Your task to perform on an android device: turn on improve location accuracy Image 0: 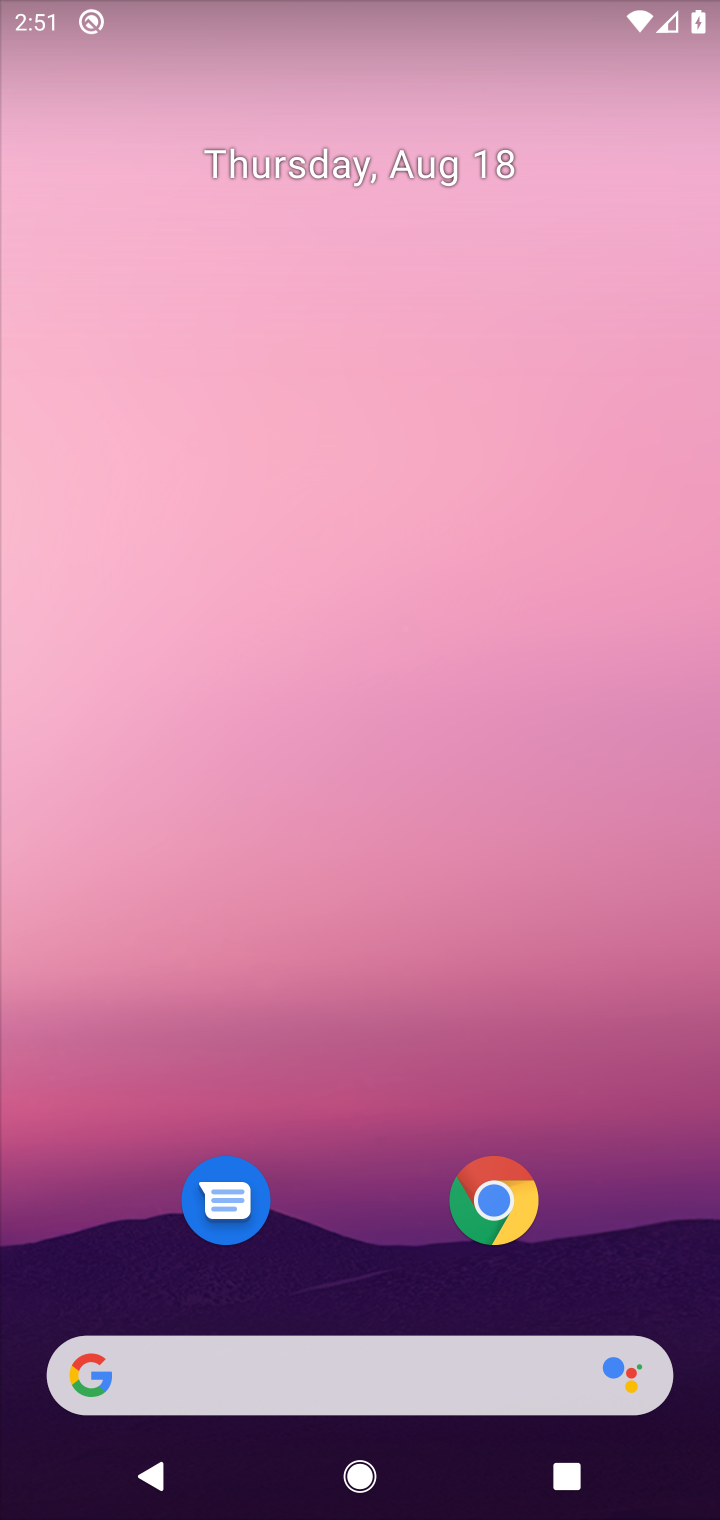
Step 0: drag from (369, 1234) to (451, 227)
Your task to perform on an android device: turn on improve location accuracy Image 1: 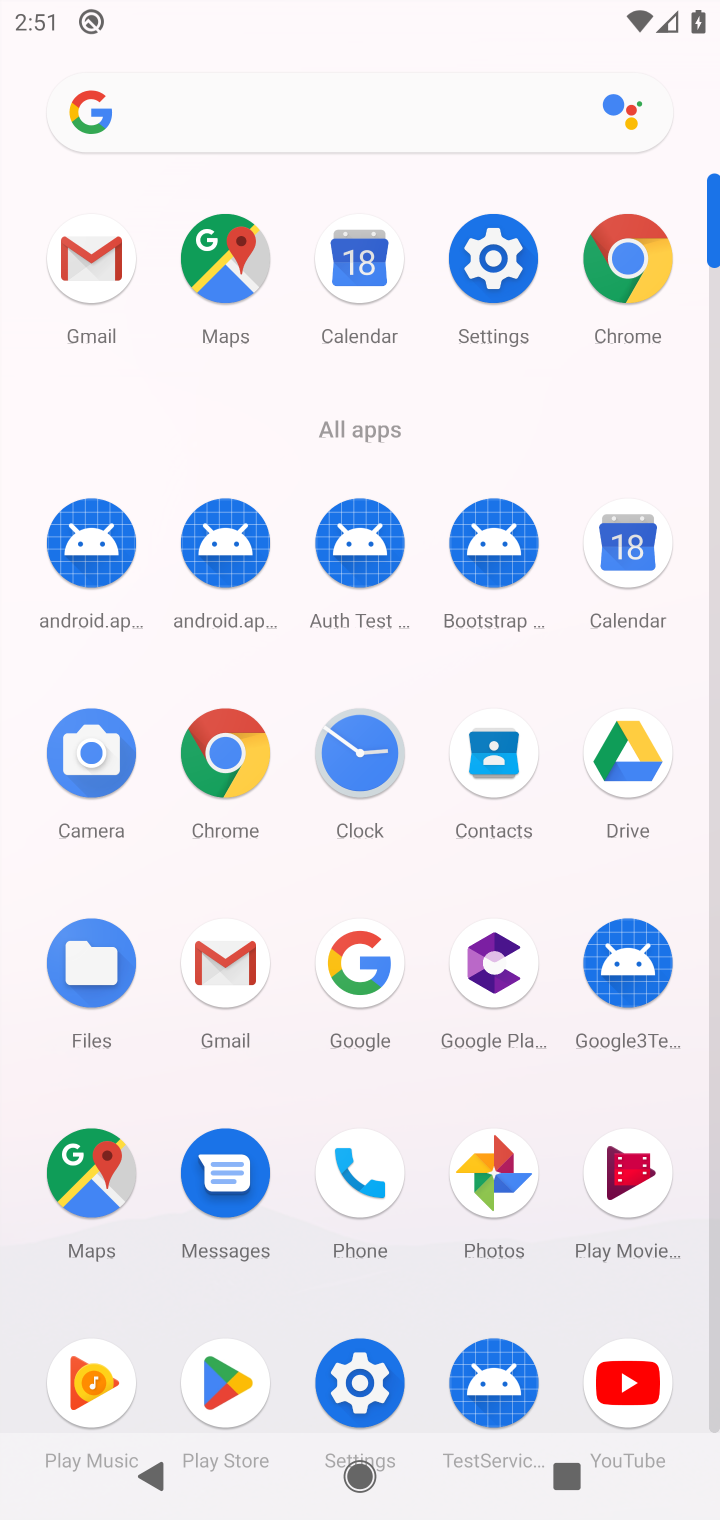
Step 1: click (357, 1382)
Your task to perform on an android device: turn on improve location accuracy Image 2: 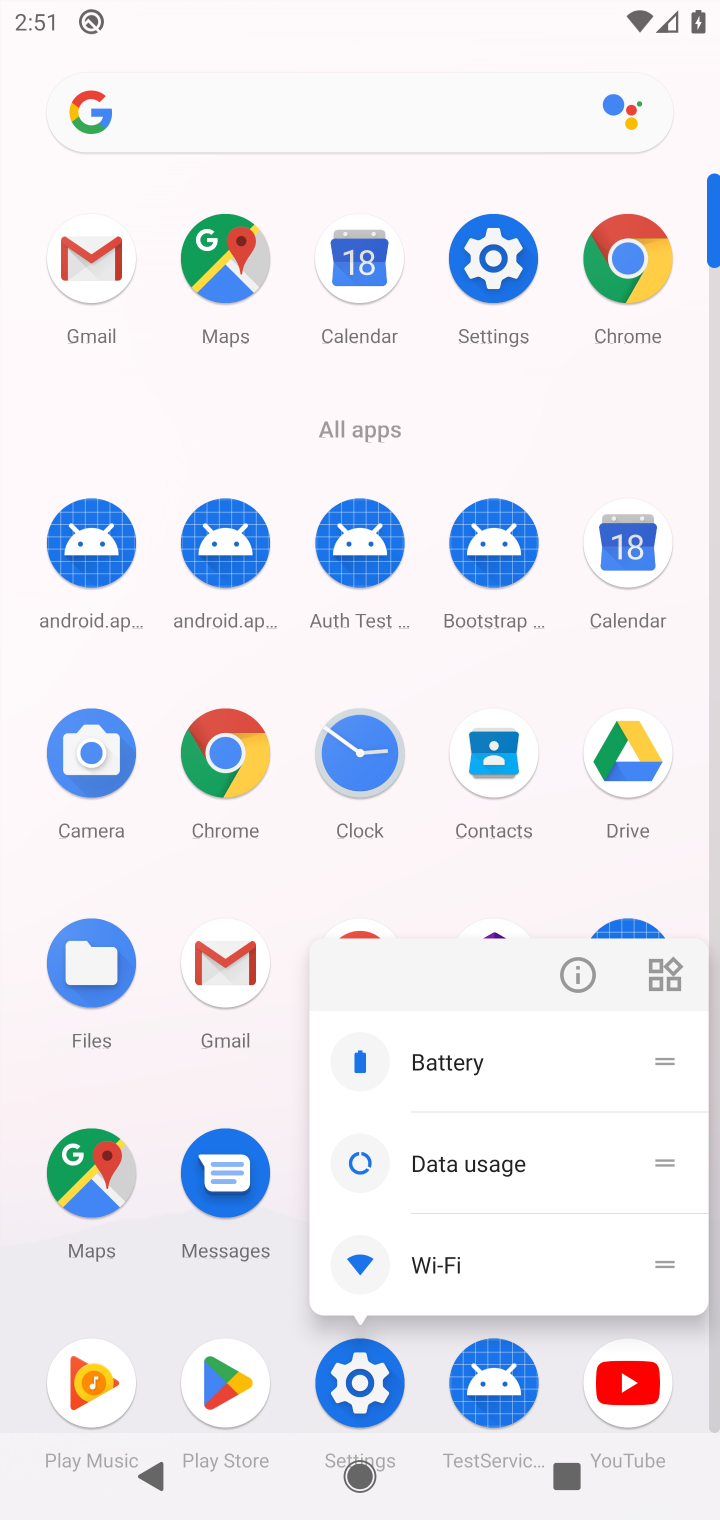
Step 2: click (358, 1355)
Your task to perform on an android device: turn on improve location accuracy Image 3: 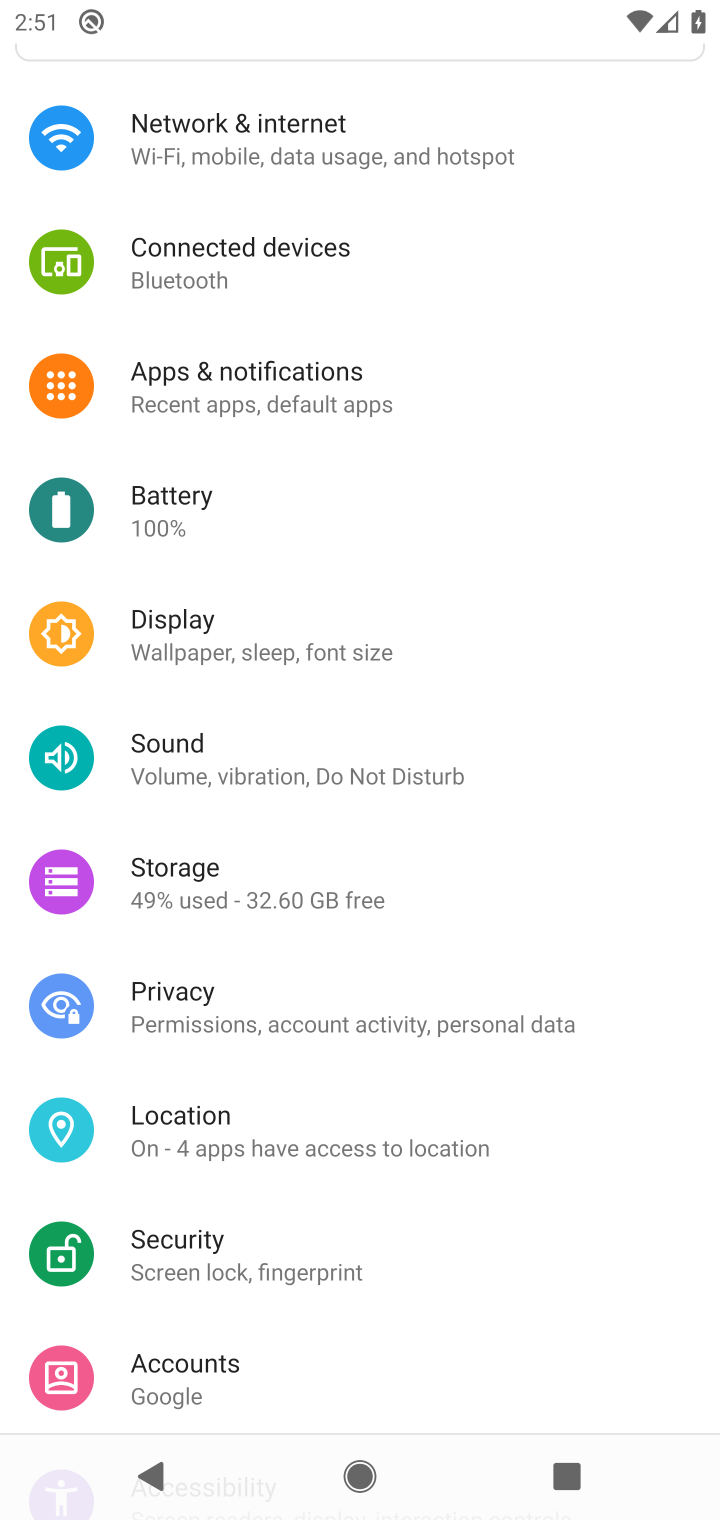
Step 3: click (224, 1145)
Your task to perform on an android device: turn on improve location accuracy Image 4: 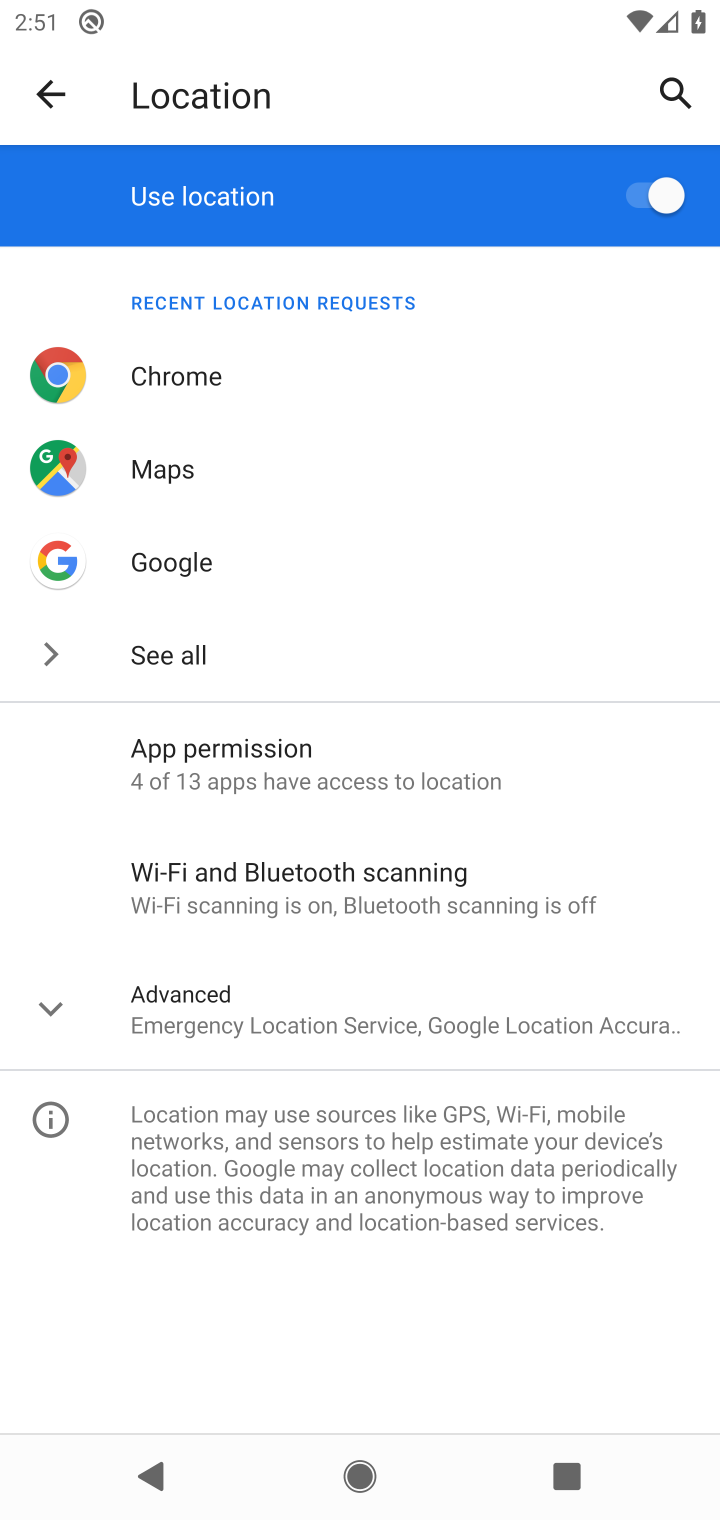
Step 4: click (284, 1000)
Your task to perform on an android device: turn on improve location accuracy Image 5: 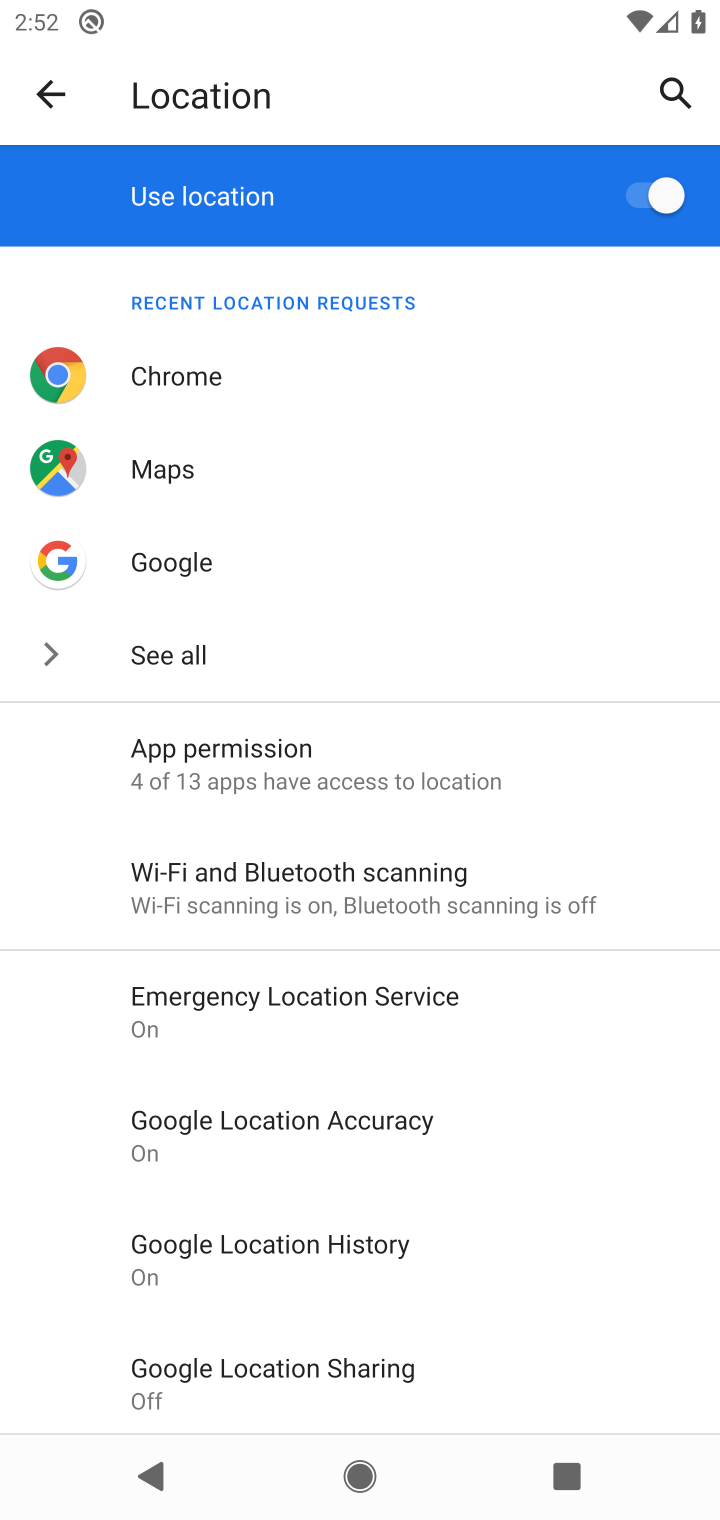
Step 5: click (296, 1103)
Your task to perform on an android device: turn on improve location accuracy Image 6: 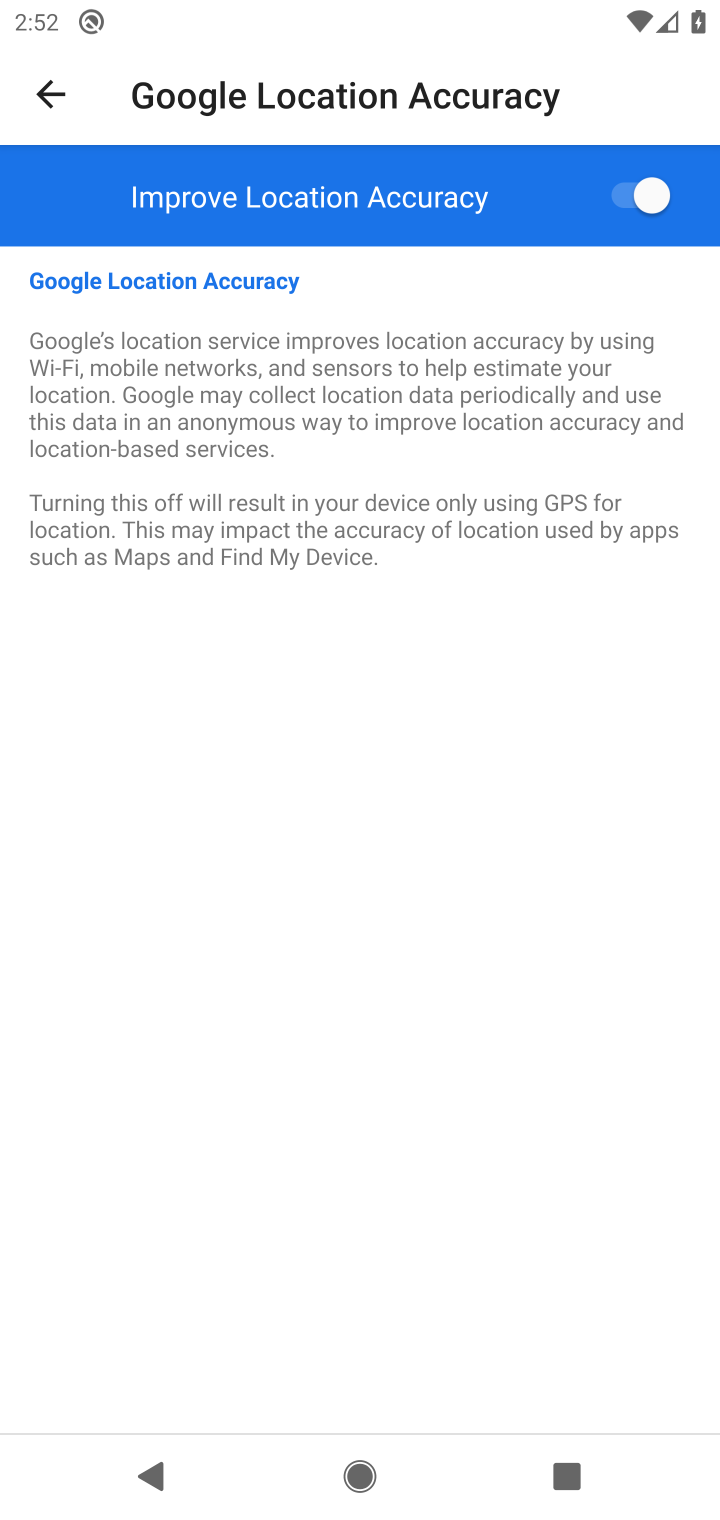
Step 6: task complete